Your task to perform on an android device: See recent photos Image 0: 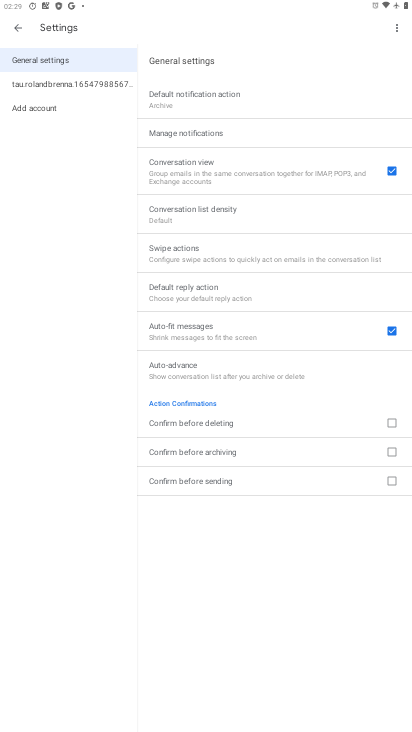
Step 0: press home button
Your task to perform on an android device: See recent photos Image 1: 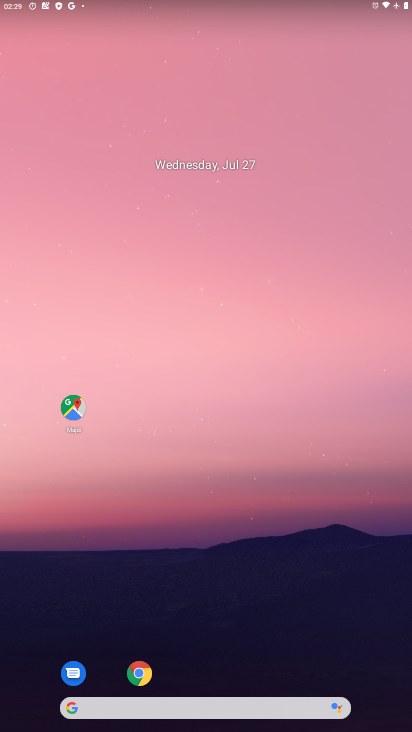
Step 1: drag from (229, 664) to (261, 10)
Your task to perform on an android device: See recent photos Image 2: 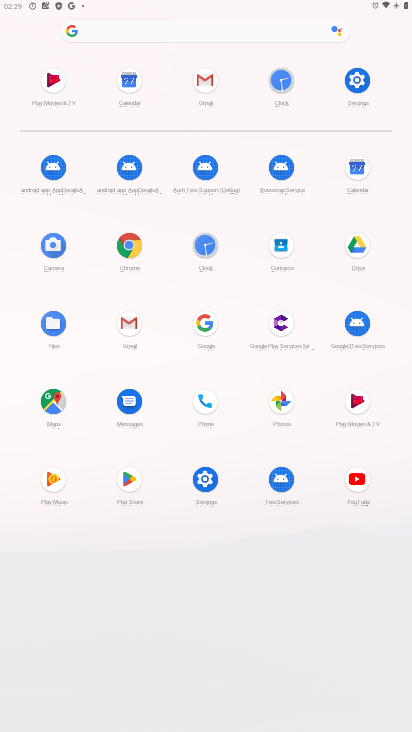
Step 2: click (276, 403)
Your task to perform on an android device: See recent photos Image 3: 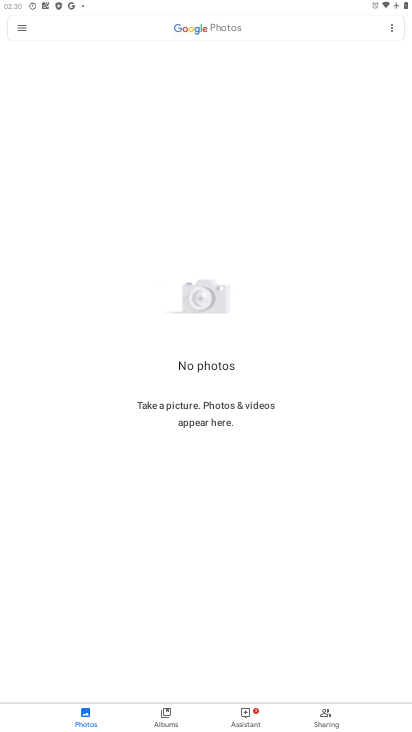
Step 3: click (84, 716)
Your task to perform on an android device: See recent photos Image 4: 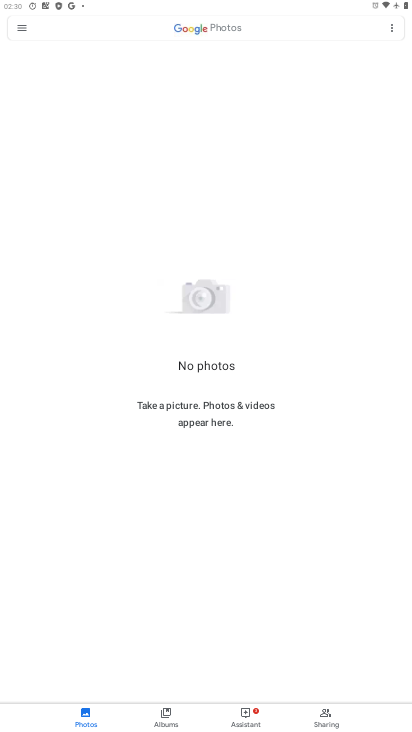
Step 4: task complete